Your task to perform on an android device: change text size in settings app Image 0: 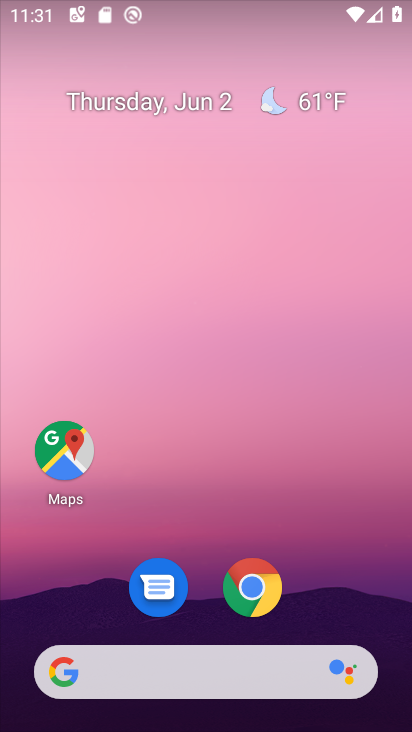
Step 0: drag from (237, 466) to (211, 0)
Your task to perform on an android device: change text size in settings app Image 1: 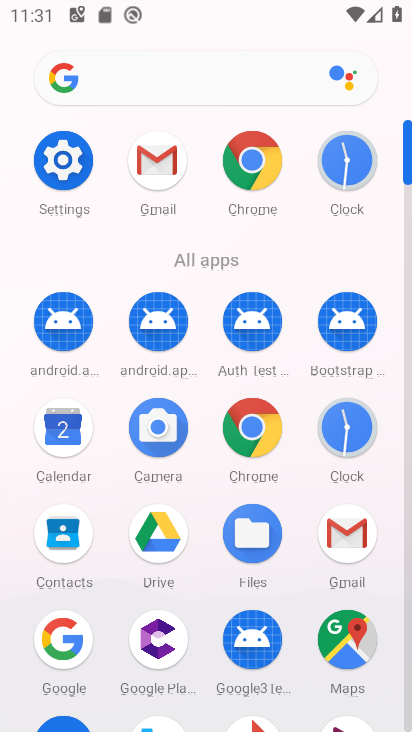
Step 1: click (55, 165)
Your task to perform on an android device: change text size in settings app Image 2: 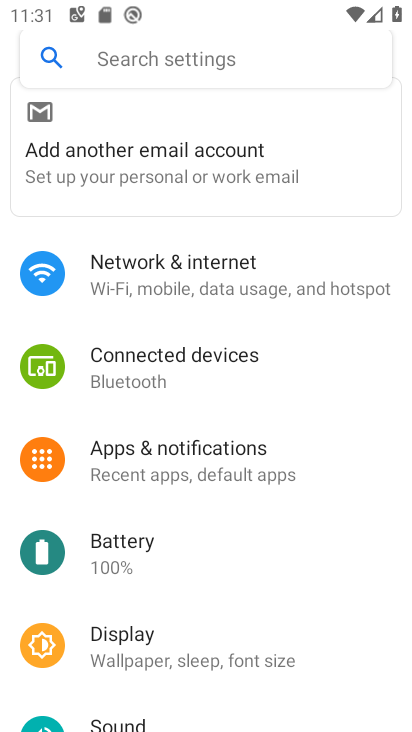
Step 2: click (259, 637)
Your task to perform on an android device: change text size in settings app Image 3: 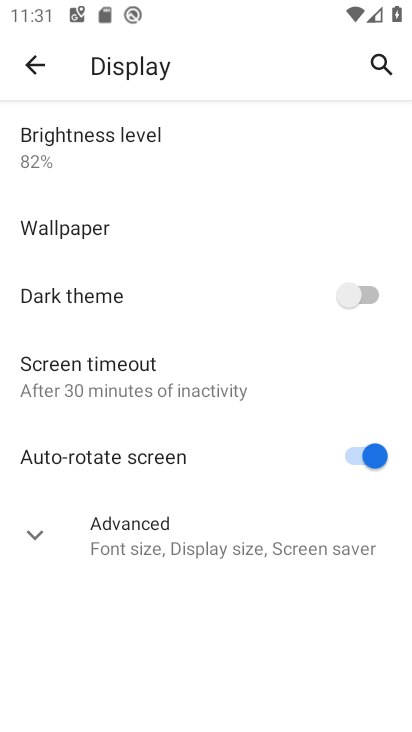
Step 3: click (33, 525)
Your task to perform on an android device: change text size in settings app Image 4: 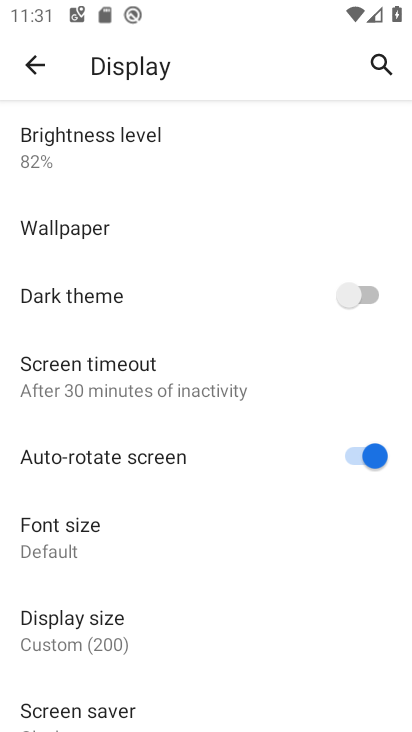
Step 4: click (158, 537)
Your task to perform on an android device: change text size in settings app Image 5: 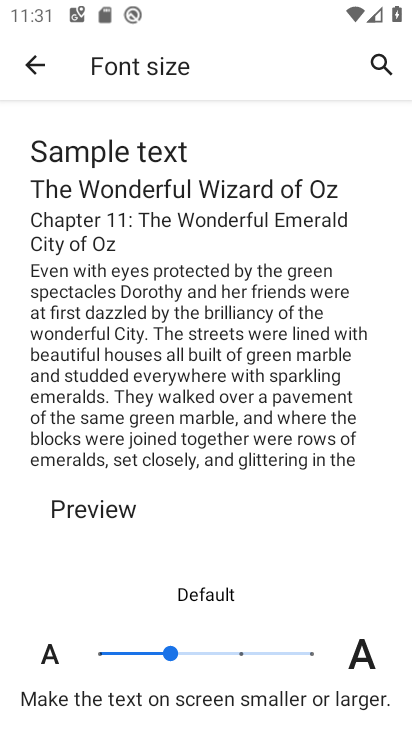
Step 5: click (236, 643)
Your task to perform on an android device: change text size in settings app Image 6: 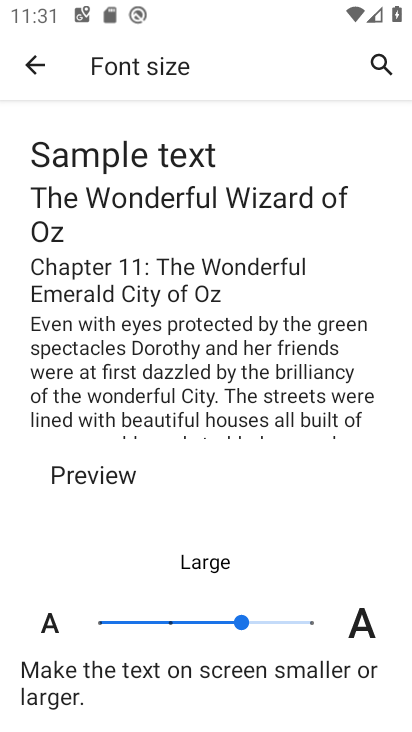
Step 6: click (34, 56)
Your task to perform on an android device: change text size in settings app Image 7: 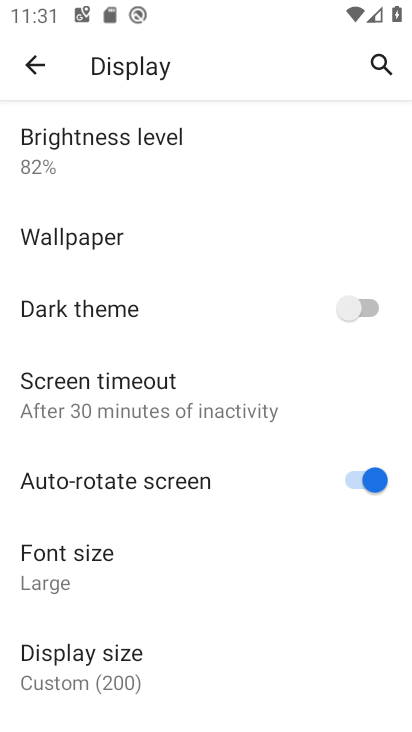
Step 7: task complete